Your task to perform on an android device: Search for the best way to get rid of a cold Image 0: 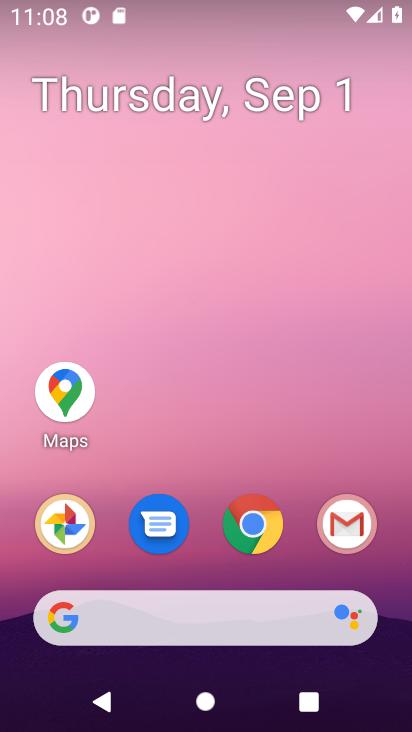
Step 0: drag from (393, 571) to (404, 175)
Your task to perform on an android device: Search for the best way to get rid of a cold Image 1: 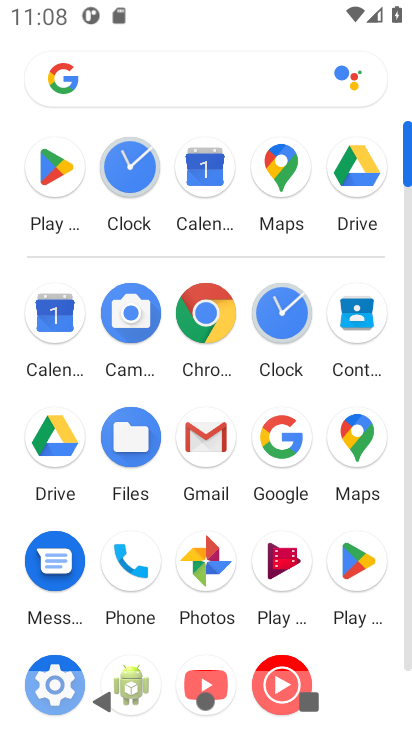
Step 1: click (288, 440)
Your task to perform on an android device: Search for the best way to get rid of a cold Image 2: 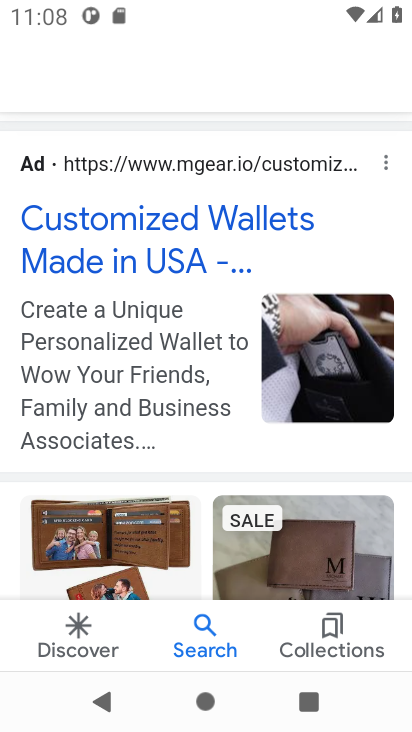
Step 2: drag from (223, 268) to (223, 472)
Your task to perform on an android device: Search for the best way to get rid of a cold Image 3: 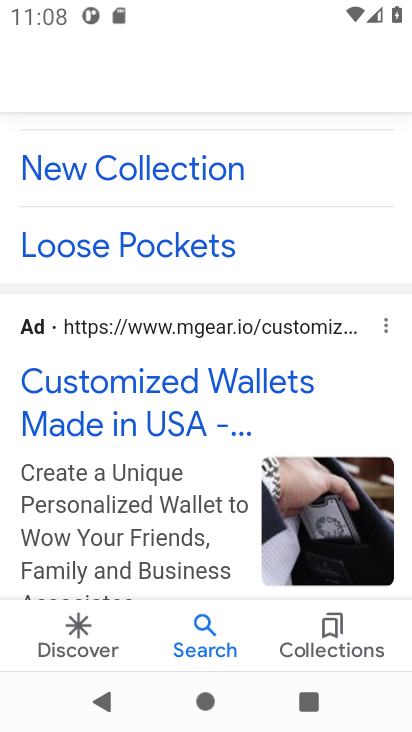
Step 3: drag from (232, 166) to (233, 465)
Your task to perform on an android device: Search for the best way to get rid of a cold Image 4: 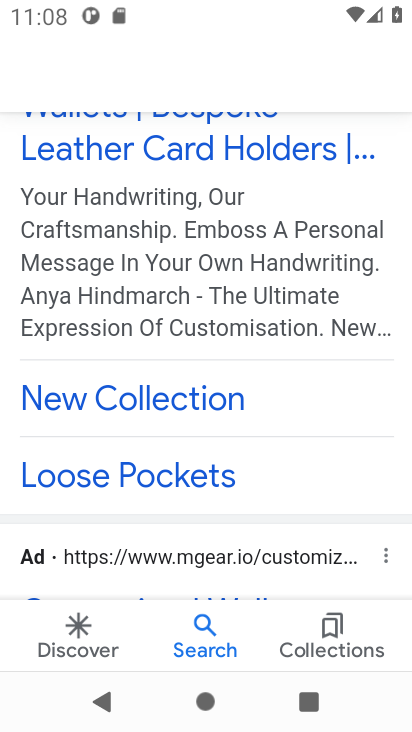
Step 4: press back button
Your task to perform on an android device: Search for the best way to get rid of a cold Image 5: 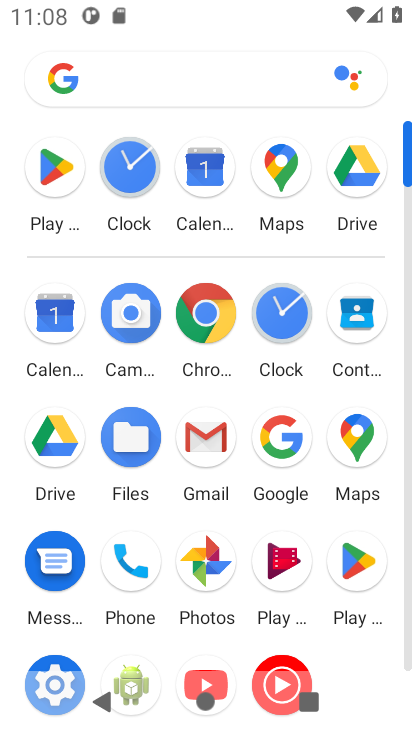
Step 5: click (297, 446)
Your task to perform on an android device: Search for the best way to get rid of a cold Image 6: 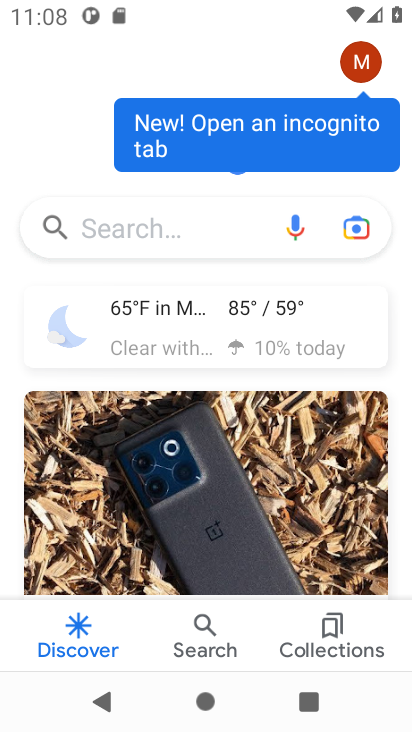
Step 6: click (179, 227)
Your task to perform on an android device: Search for the best way to get rid of a cold Image 7: 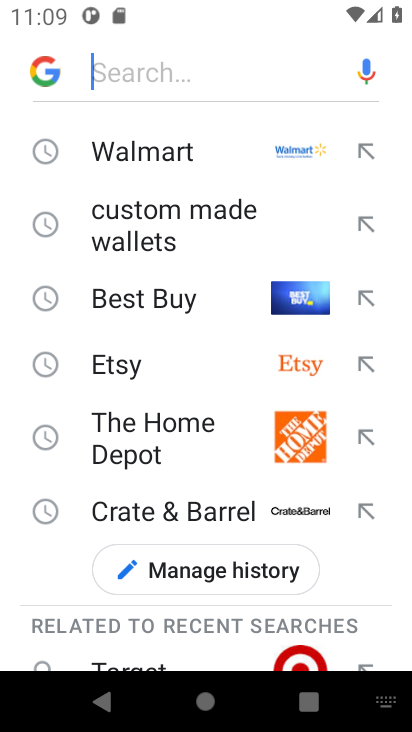
Step 7: type "best way to get rid of a cold"
Your task to perform on an android device: Search for the best way to get rid of a cold Image 8: 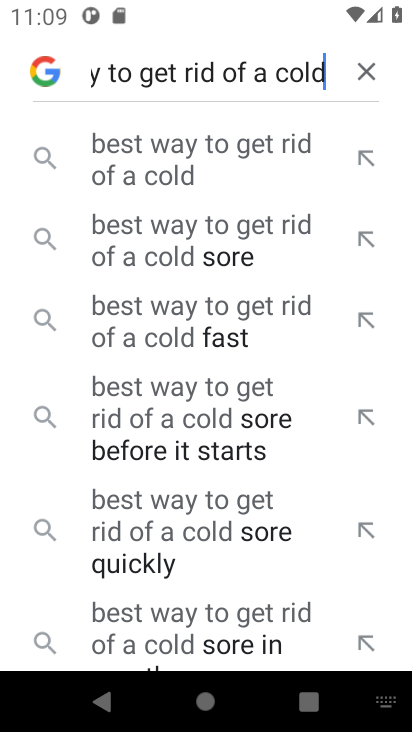
Step 8: press enter
Your task to perform on an android device: Search for the best way to get rid of a cold Image 9: 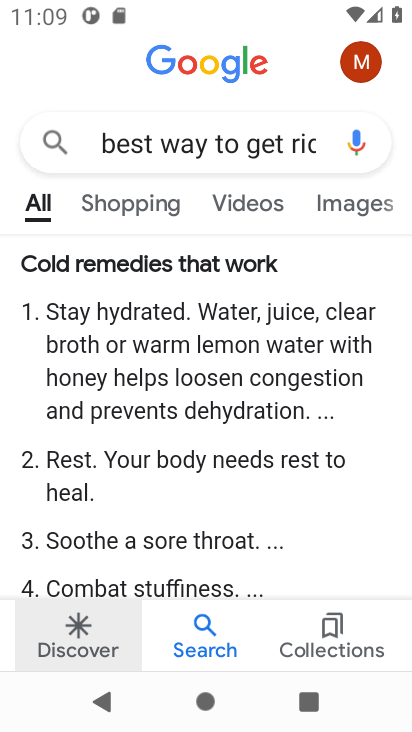
Step 9: task complete